Your task to perform on an android device: turn off wifi Image 0: 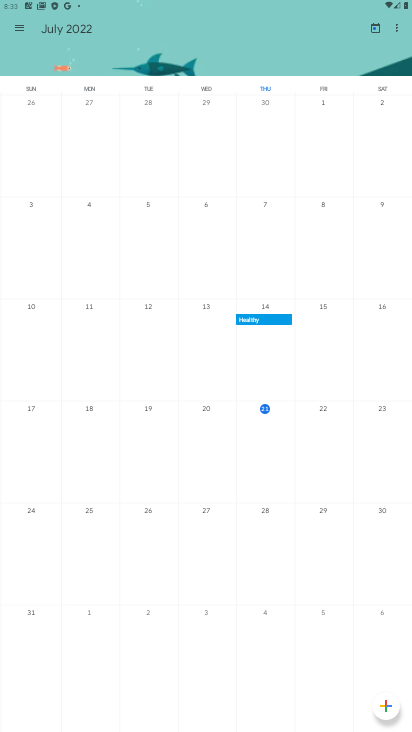
Step 0: press home button
Your task to perform on an android device: turn off wifi Image 1: 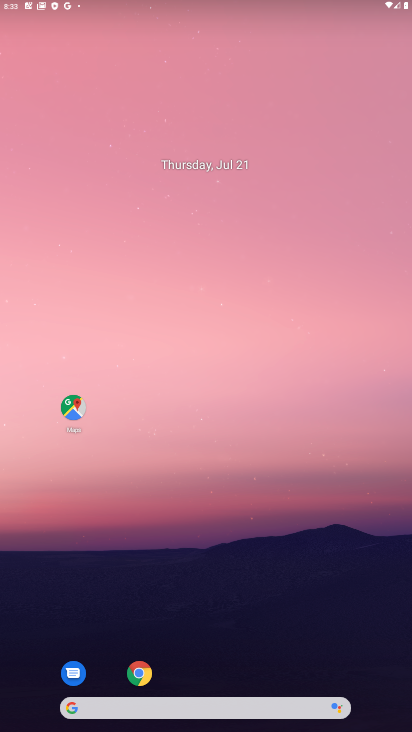
Step 1: drag from (202, 650) to (247, 99)
Your task to perform on an android device: turn off wifi Image 2: 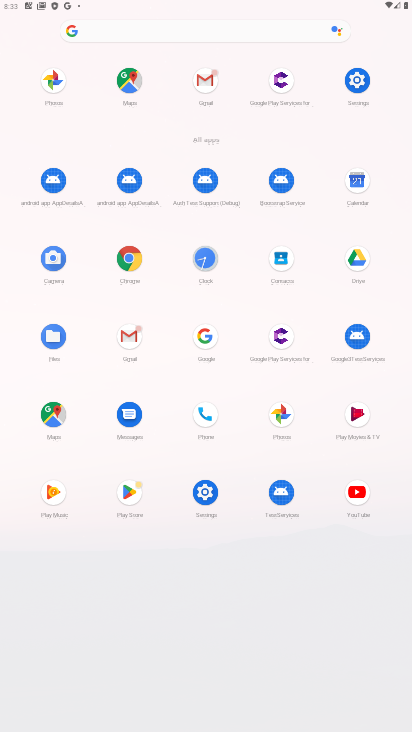
Step 2: click (357, 83)
Your task to perform on an android device: turn off wifi Image 3: 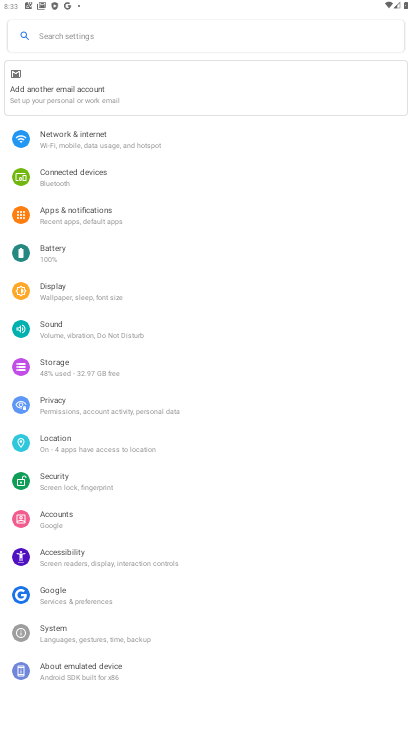
Step 3: click (68, 138)
Your task to perform on an android device: turn off wifi Image 4: 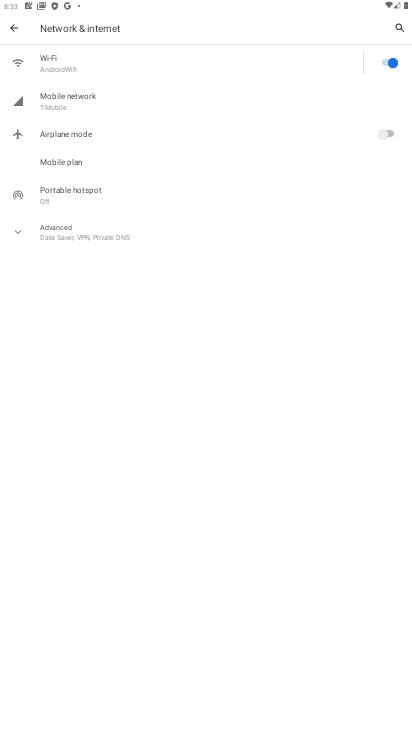
Step 4: click (390, 68)
Your task to perform on an android device: turn off wifi Image 5: 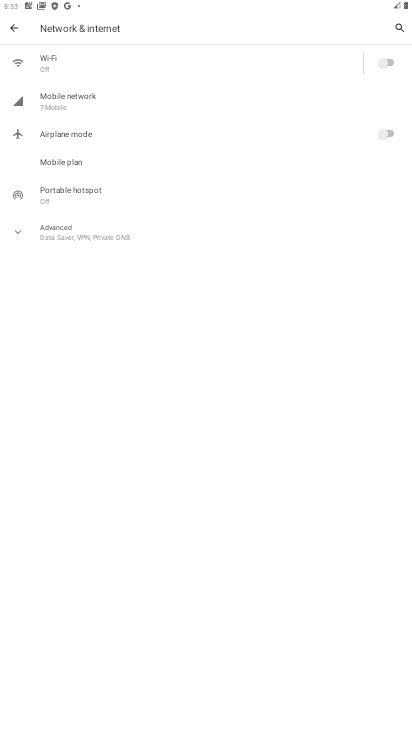
Step 5: task complete